Your task to perform on an android device: Open Maps and search for coffee Image 0: 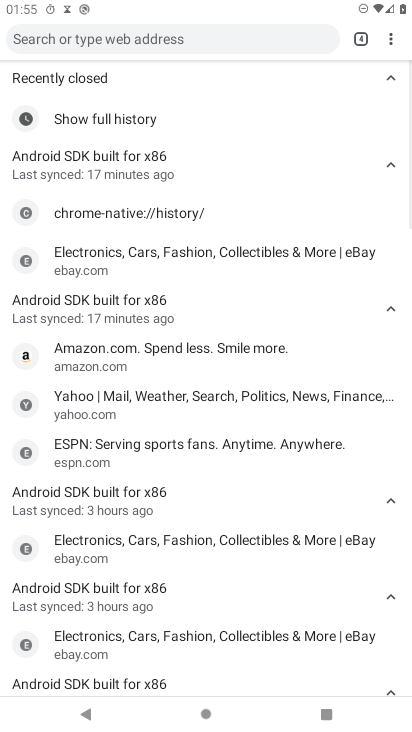
Step 0: press home button
Your task to perform on an android device: Open Maps and search for coffee Image 1: 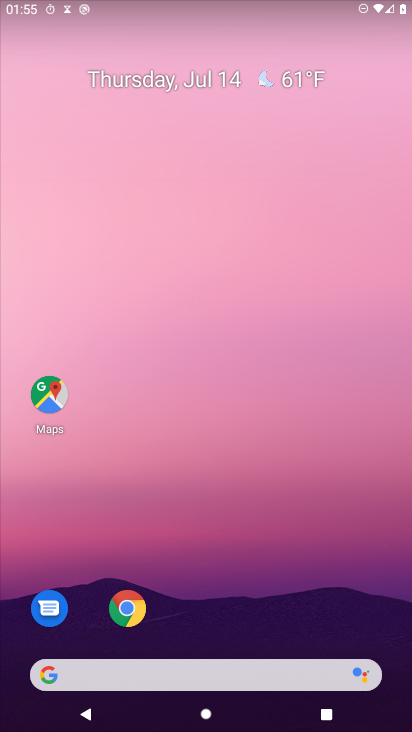
Step 1: press home button
Your task to perform on an android device: Open Maps and search for coffee Image 2: 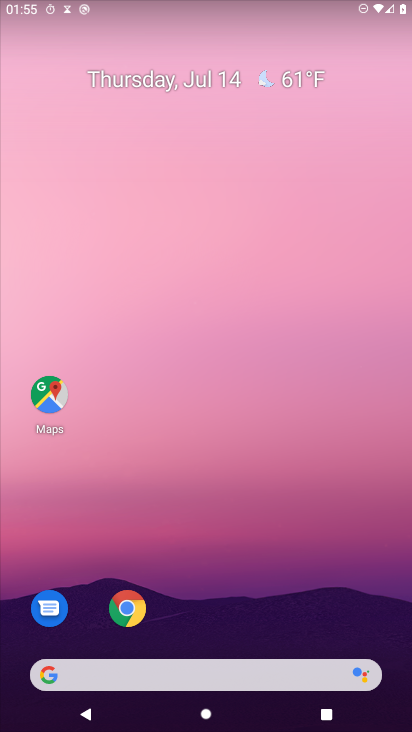
Step 2: drag from (230, 475) to (221, 105)
Your task to perform on an android device: Open Maps and search for coffee Image 3: 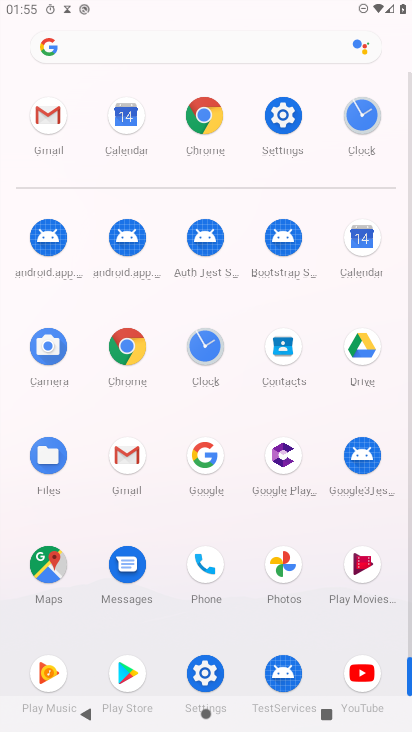
Step 3: click (43, 561)
Your task to perform on an android device: Open Maps and search for coffee Image 4: 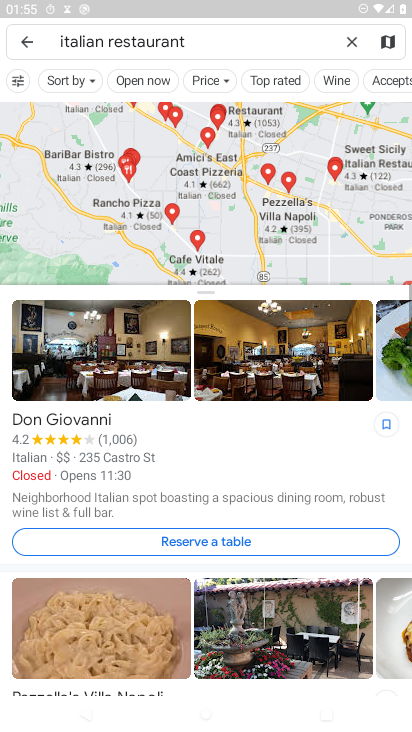
Step 4: click (346, 37)
Your task to perform on an android device: Open Maps and search for coffee Image 5: 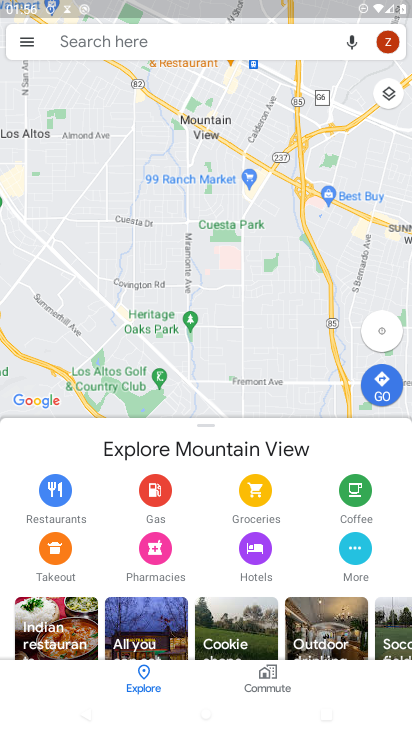
Step 5: type "coffee"
Your task to perform on an android device: Open Maps and search for coffee Image 6: 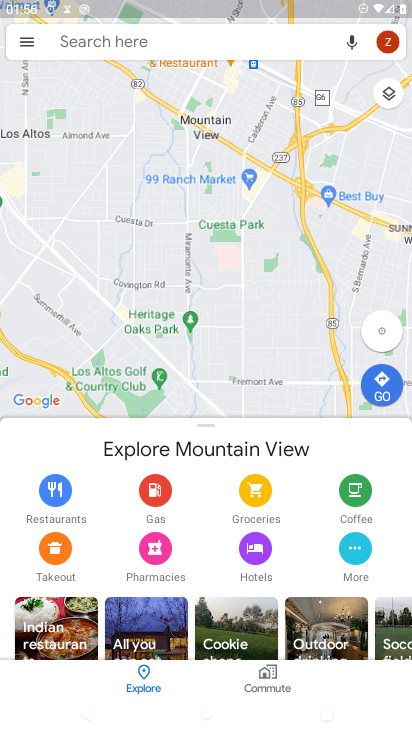
Step 6: click (111, 39)
Your task to perform on an android device: Open Maps and search for coffee Image 7: 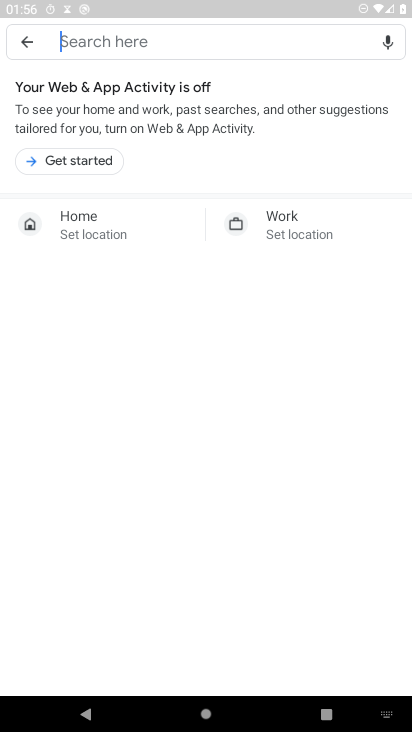
Step 7: click (123, 44)
Your task to perform on an android device: Open Maps and search for coffee Image 8: 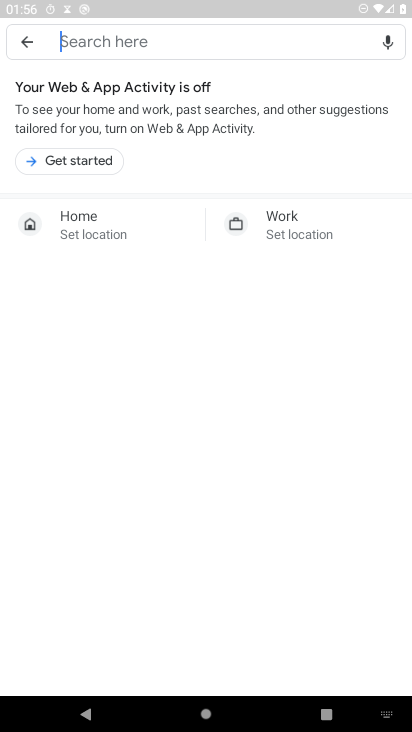
Step 8: click (112, 37)
Your task to perform on an android device: Open Maps and search for coffee Image 9: 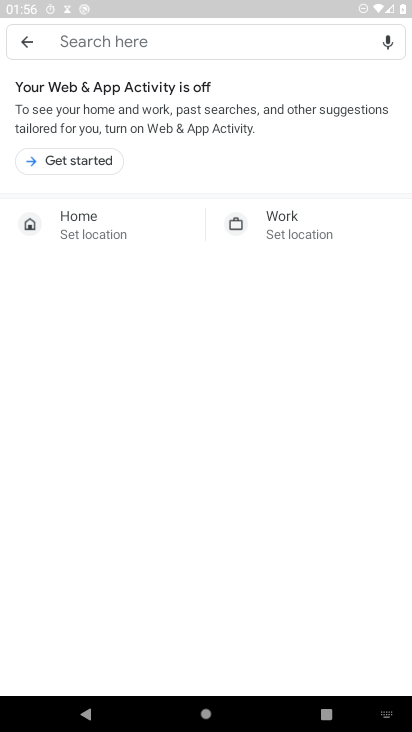
Step 9: type "coffee"
Your task to perform on an android device: Open Maps and search for coffee Image 10: 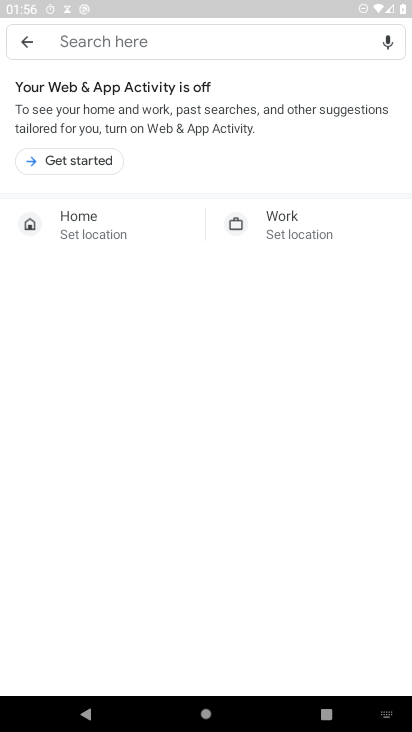
Step 10: click (128, 30)
Your task to perform on an android device: Open Maps and search for coffee Image 11: 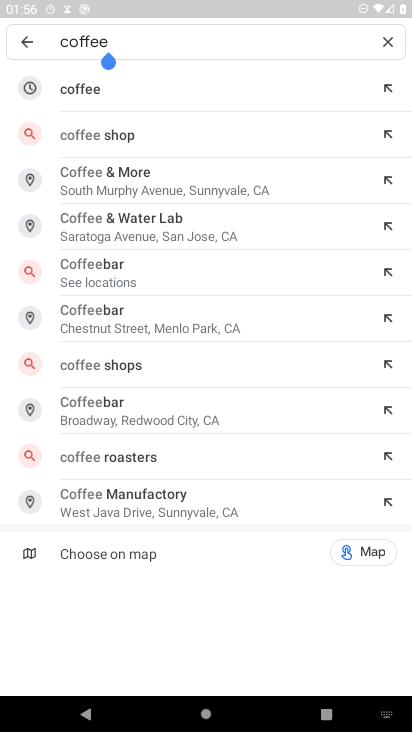
Step 11: click (74, 90)
Your task to perform on an android device: Open Maps and search for coffee Image 12: 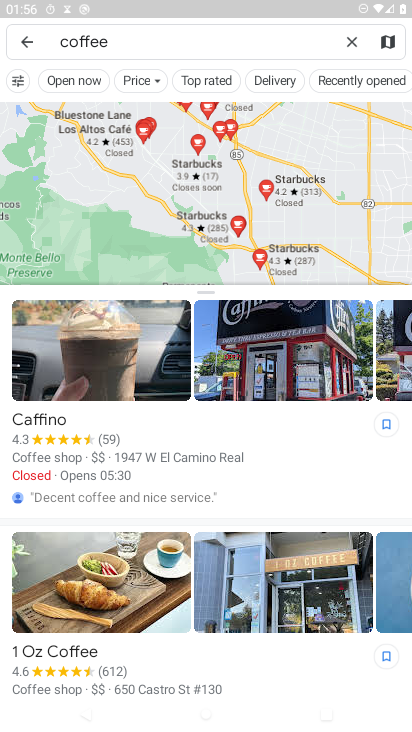
Step 12: task complete